Your task to perform on an android device: Open accessibility settings Image 0: 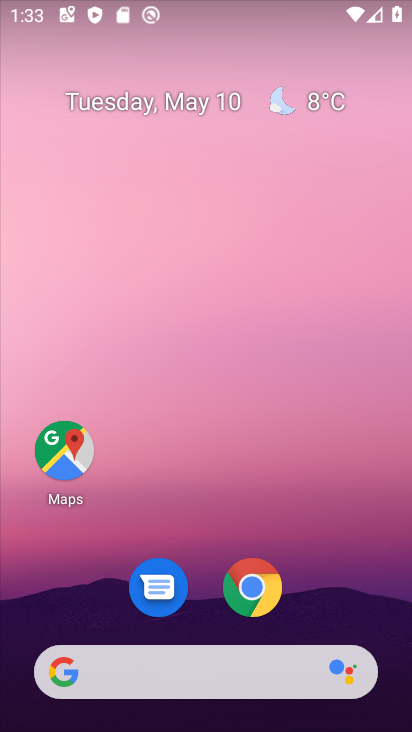
Step 0: drag from (328, 586) to (286, 155)
Your task to perform on an android device: Open accessibility settings Image 1: 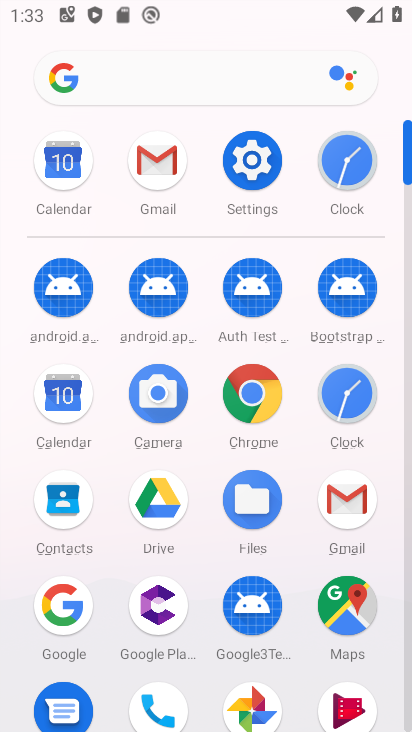
Step 1: click (252, 156)
Your task to perform on an android device: Open accessibility settings Image 2: 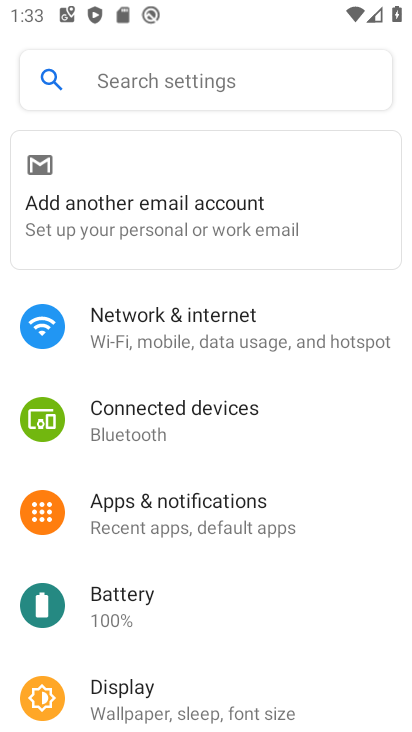
Step 2: drag from (212, 540) to (180, 246)
Your task to perform on an android device: Open accessibility settings Image 3: 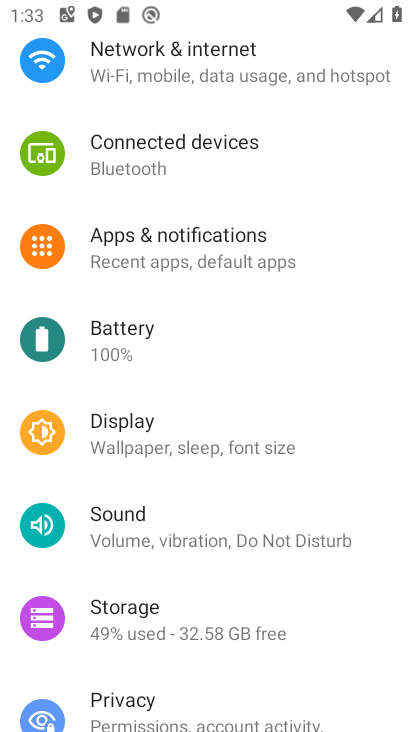
Step 3: drag from (203, 471) to (178, 189)
Your task to perform on an android device: Open accessibility settings Image 4: 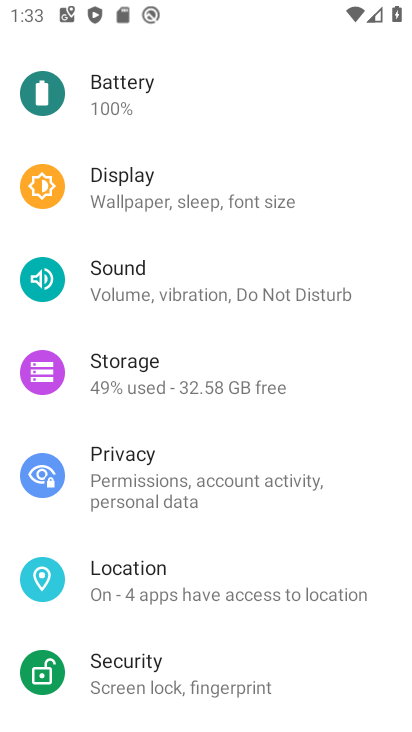
Step 4: drag from (179, 629) to (169, 236)
Your task to perform on an android device: Open accessibility settings Image 5: 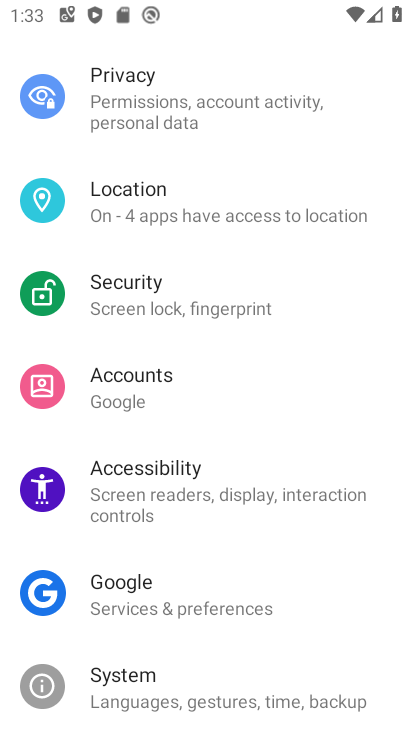
Step 5: click (155, 492)
Your task to perform on an android device: Open accessibility settings Image 6: 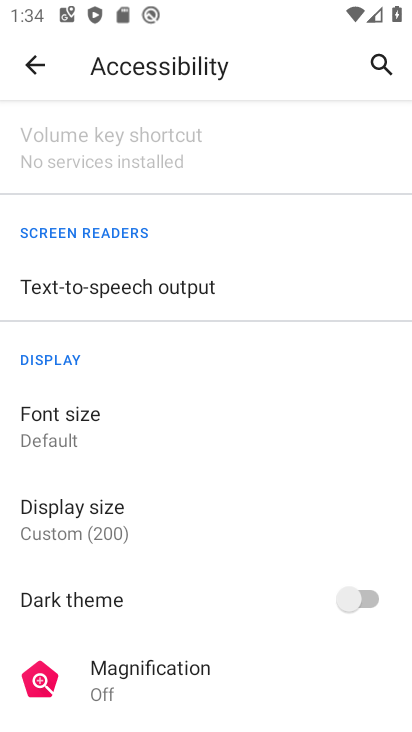
Step 6: task complete